Your task to perform on an android device: turn on the 24-hour format for clock Image 0: 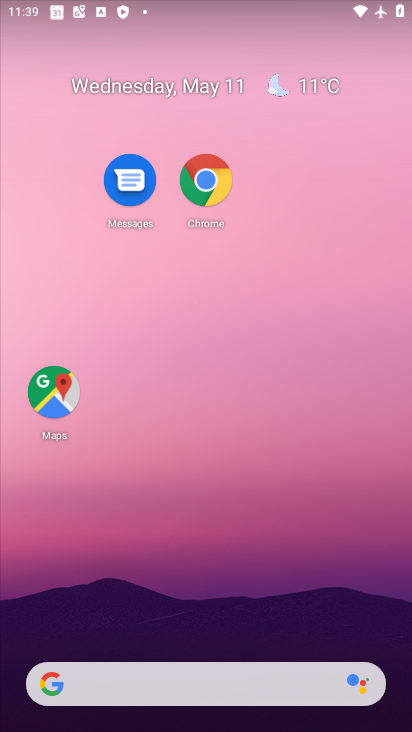
Step 0: drag from (163, 627) to (233, 170)
Your task to perform on an android device: turn on the 24-hour format for clock Image 1: 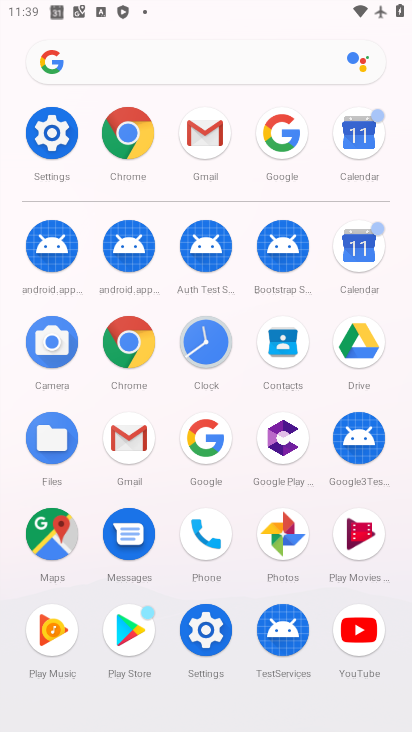
Step 1: click (210, 634)
Your task to perform on an android device: turn on the 24-hour format for clock Image 2: 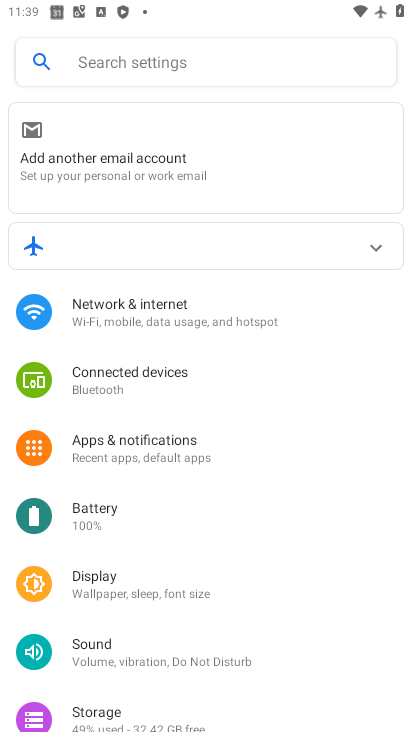
Step 2: press home button
Your task to perform on an android device: turn on the 24-hour format for clock Image 3: 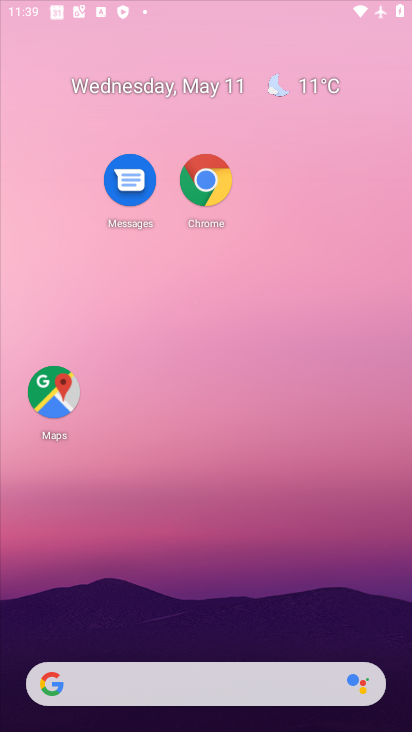
Step 3: drag from (266, 622) to (355, 229)
Your task to perform on an android device: turn on the 24-hour format for clock Image 4: 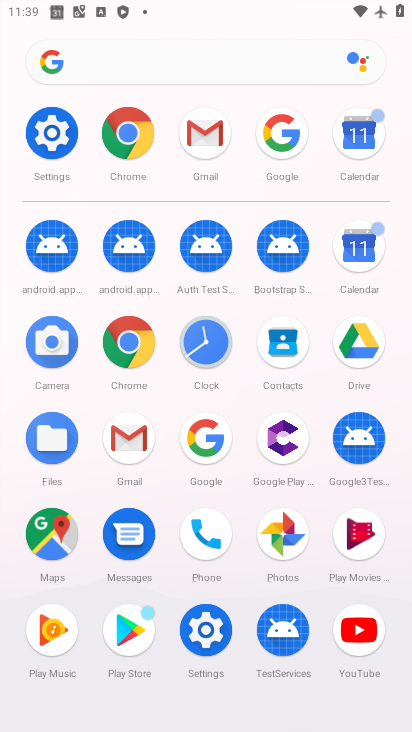
Step 4: click (221, 356)
Your task to perform on an android device: turn on the 24-hour format for clock Image 5: 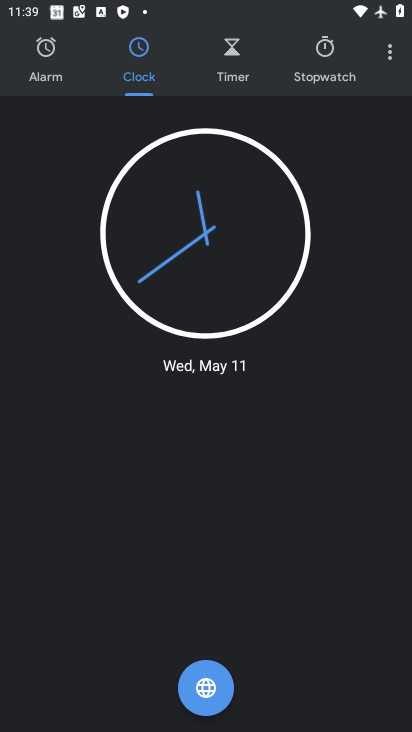
Step 5: click (378, 61)
Your task to perform on an android device: turn on the 24-hour format for clock Image 6: 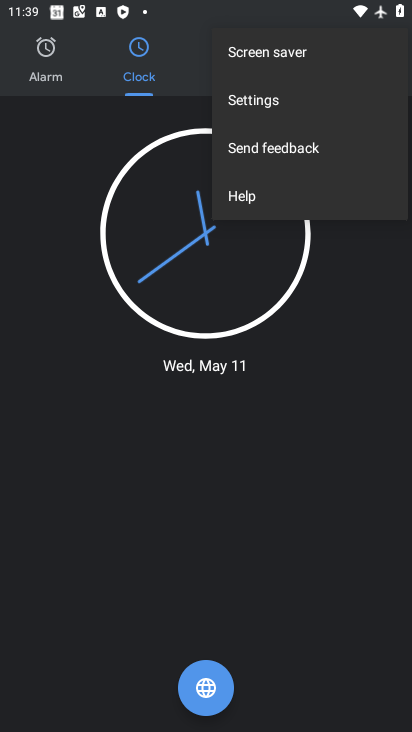
Step 6: click (284, 109)
Your task to perform on an android device: turn on the 24-hour format for clock Image 7: 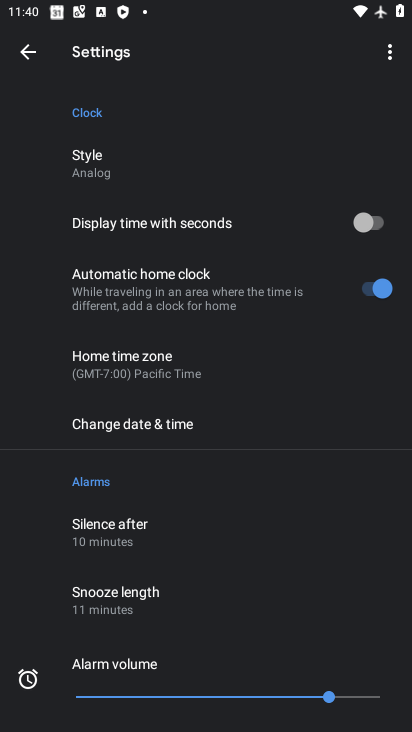
Step 7: drag from (167, 567) to (214, 279)
Your task to perform on an android device: turn on the 24-hour format for clock Image 8: 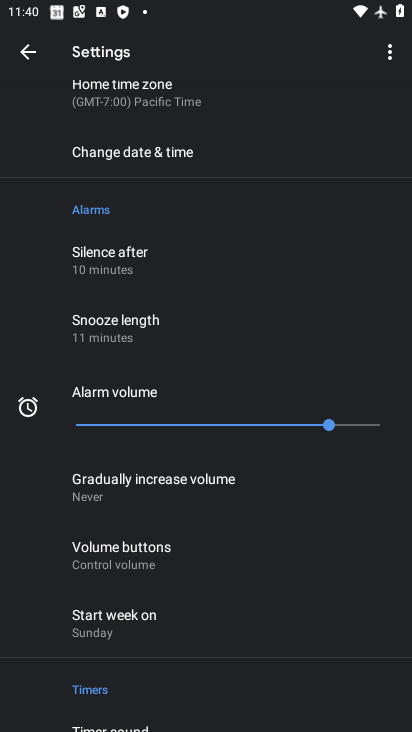
Step 8: click (212, 165)
Your task to perform on an android device: turn on the 24-hour format for clock Image 9: 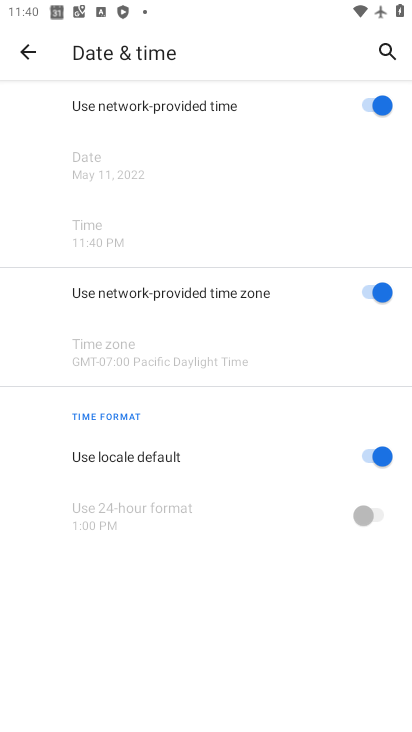
Step 9: click (373, 465)
Your task to perform on an android device: turn on the 24-hour format for clock Image 10: 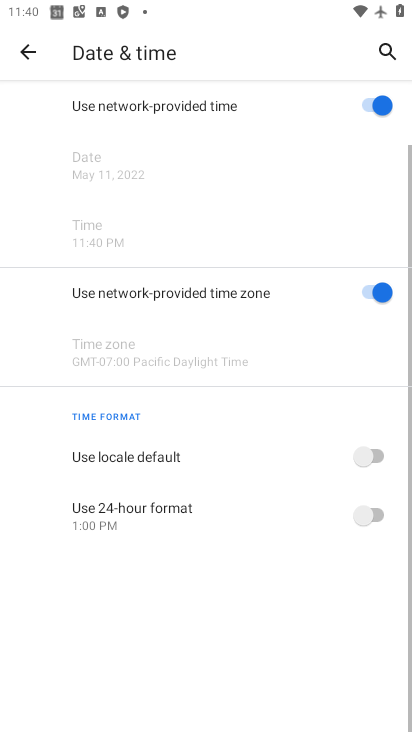
Step 10: click (365, 512)
Your task to perform on an android device: turn on the 24-hour format for clock Image 11: 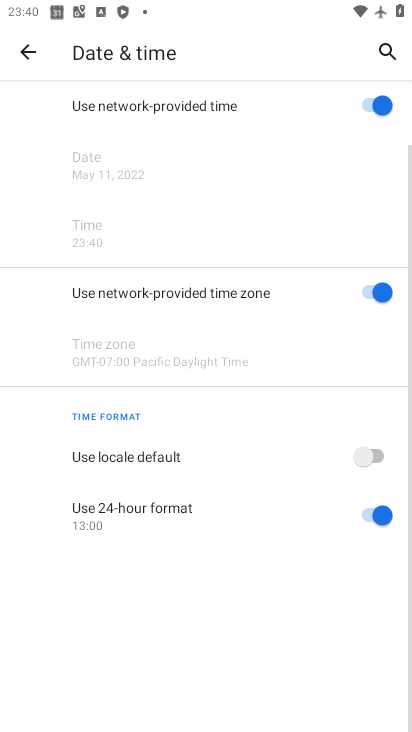
Step 11: task complete